Your task to perform on an android device: Go to Google Image 0: 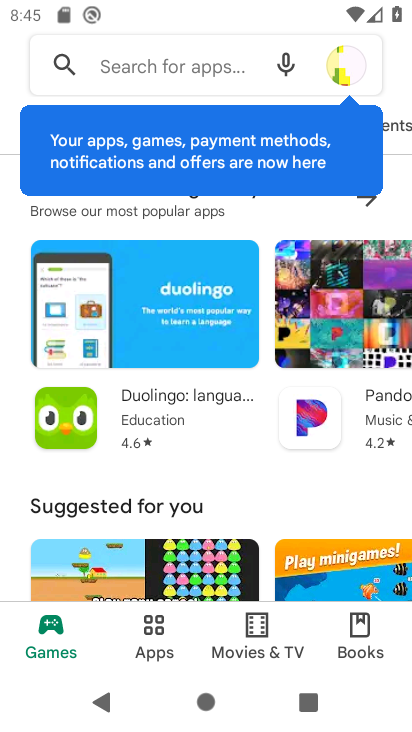
Step 0: press home button
Your task to perform on an android device: Go to Google Image 1: 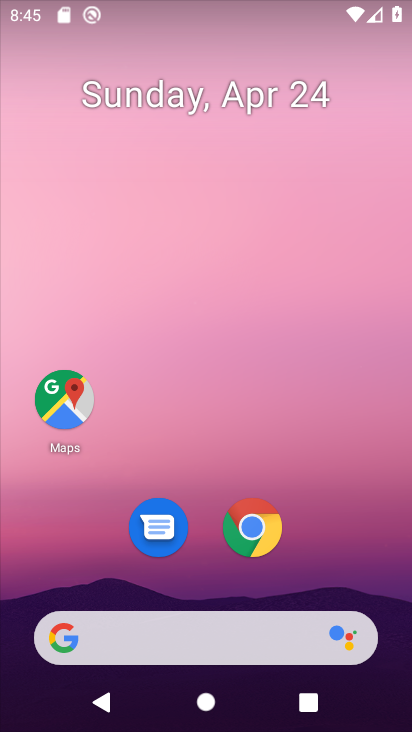
Step 1: drag from (372, 588) to (283, 53)
Your task to perform on an android device: Go to Google Image 2: 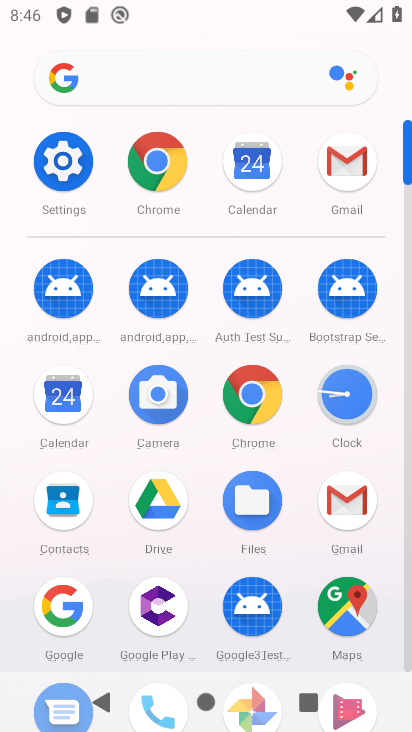
Step 2: click (67, 599)
Your task to perform on an android device: Go to Google Image 3: 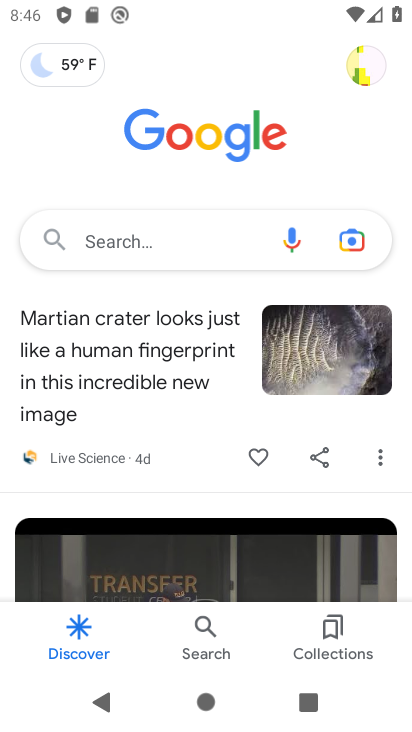
Step 3: task complete